Your task to perform on an android device: Search for sushi restaurants on Maps Image 0: 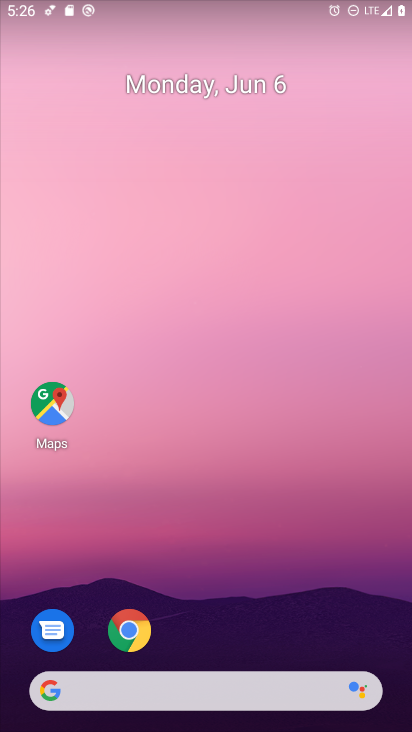
Step 0: click (58, 395)
Your task to perform on an android device: Search for sushi restaurants on Maps Image 1: 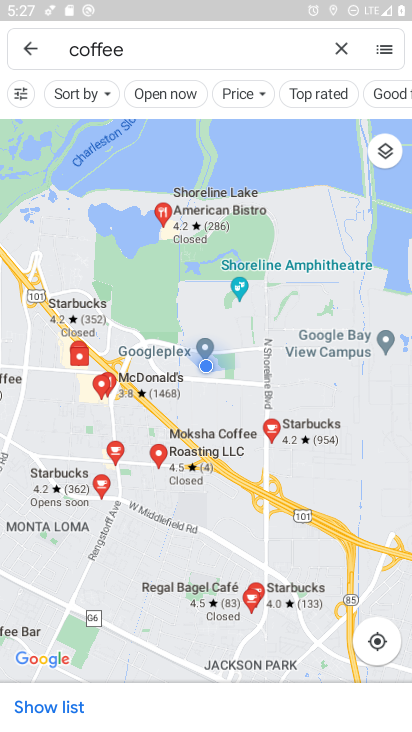
Step 1: click (345, 51)
Your task to perform on an android device: Search for sushi restaurants on Maps Image 2: 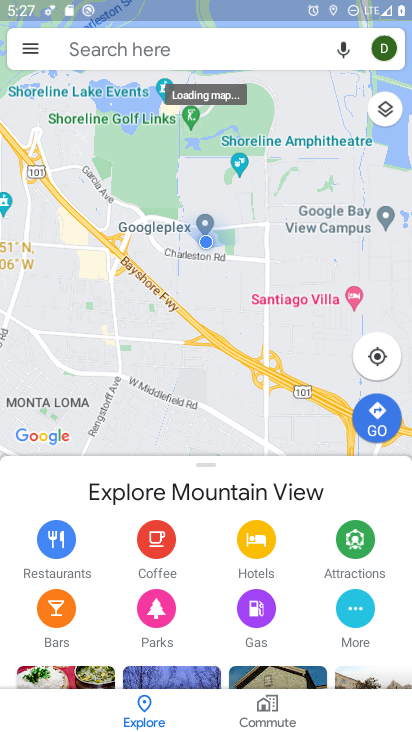
Step 2: click (154, 53)
Your task to perform on an android device: Search for sushi restaurants on Maps Image 3: 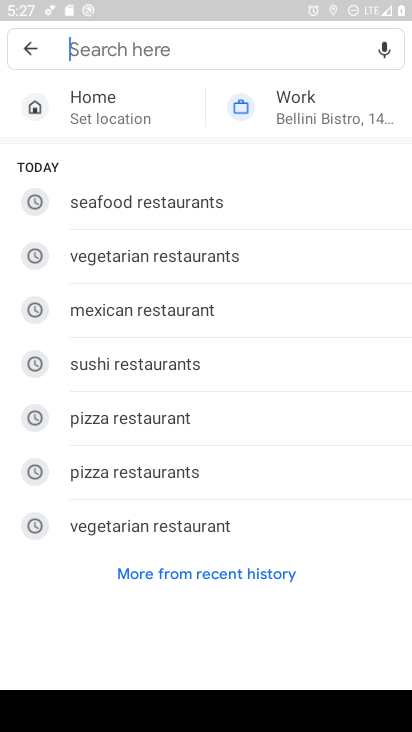
Step 3: click (179, 369)
Your task to perform on an android device: Search for sushi restaurants on Maps Image 4: 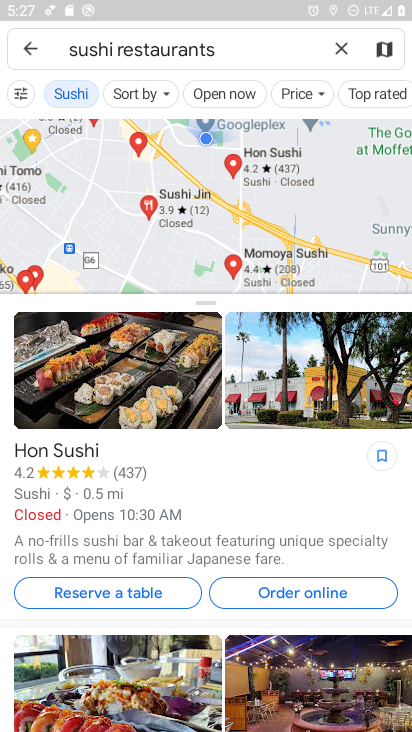
Step 4: task complete